Your task to perform on an android device: Toggle the flashlight Image 0: 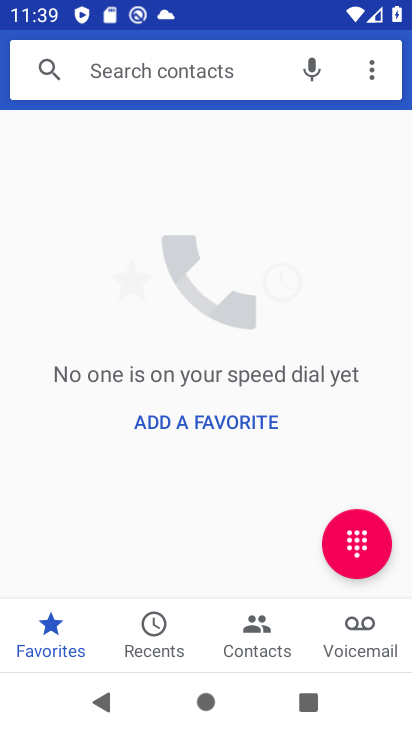
Step 0: press home button
Your task to perform on an android device: Toggle the flashlight Image 1: 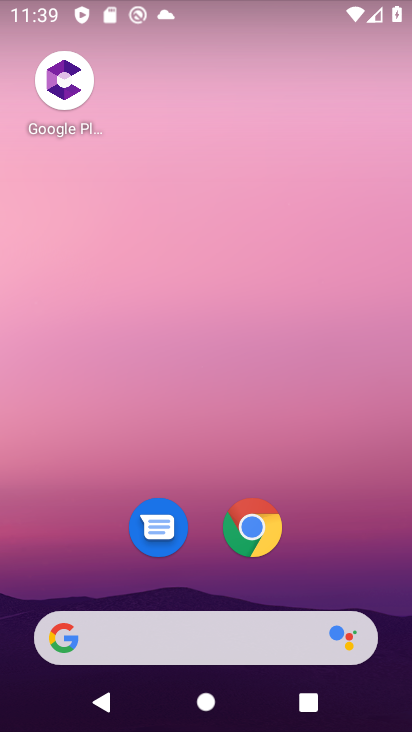
Step 1: drag from (302, 541) to (332, 131)
Your task to perform on an android device: Toggle the flashlight Image 2: 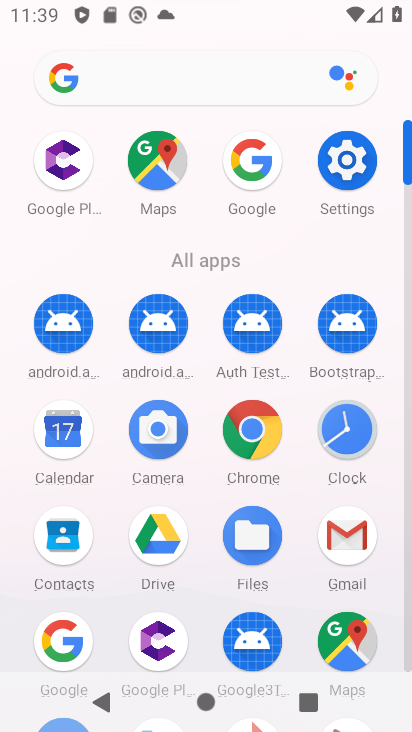
Step 2: click (338, 175)
Your task to perform on an android device: Toggle the flashlight Image 3: 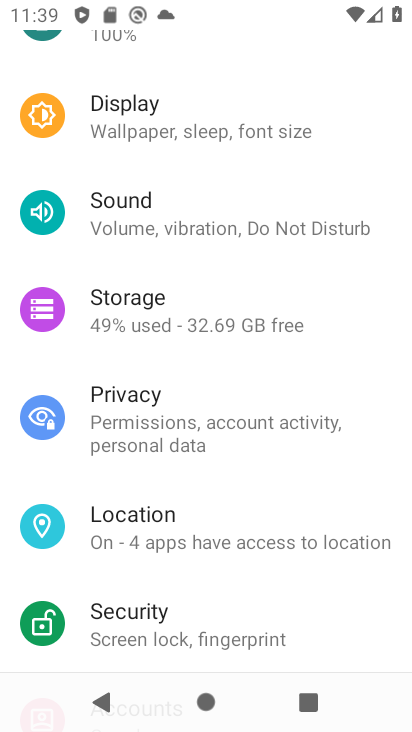
Step 3: drag from (250, 121) to (212, 643)
Your task to perform on an android device: Toggle the flashlight Image 4: 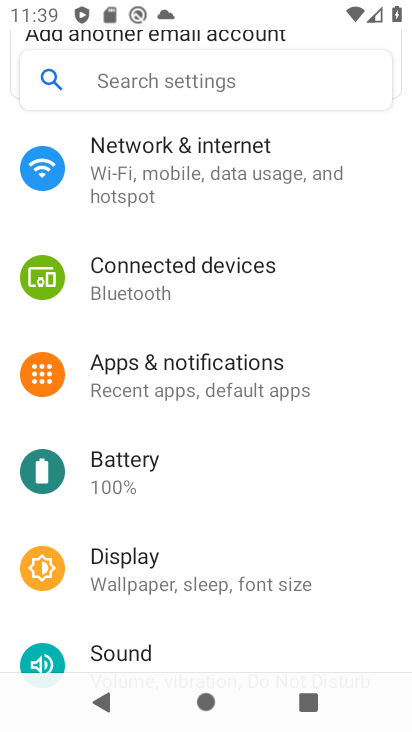
Step 4: drag from (182, 238) to (196, 663)
Your task to perform on an android device: Toggle the flashlight Image 5: 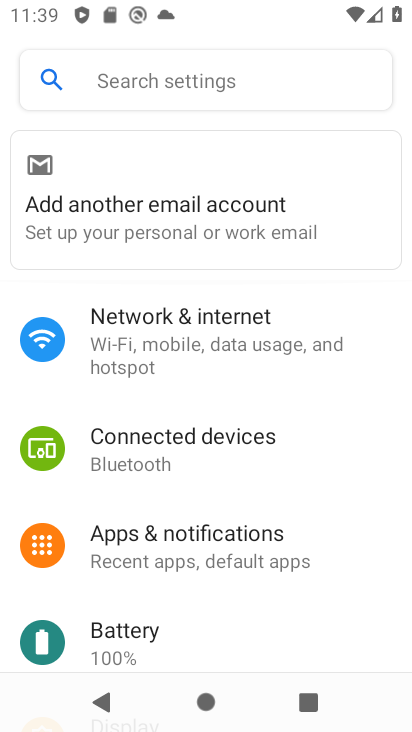
Step 5: click (155, 87)
Your task to perform on an android device: Toggle the flashlight Image 6: 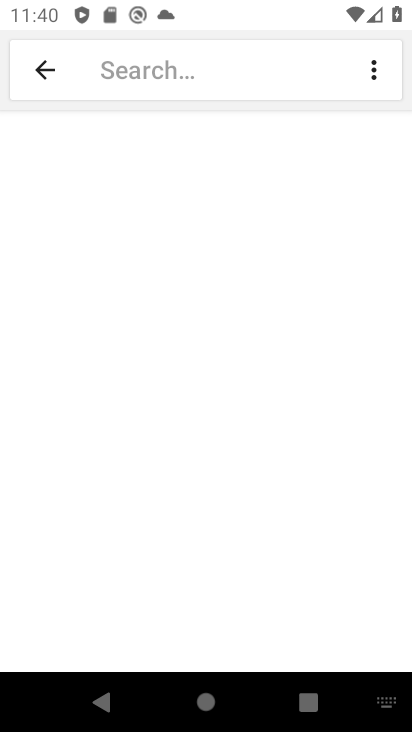
Step 6: type "Flashlight"
Your task to perform on an android device: Toggle the flashlight Image 7: 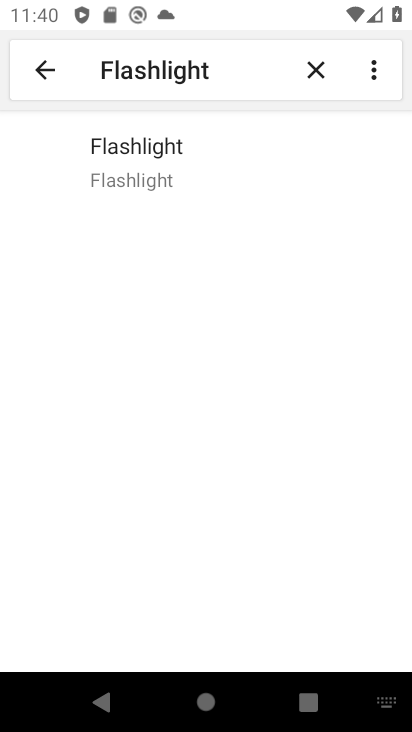
Step 7: click (196, 173)
Your task to perform on an android device: Toggle the flashlight Image 8: 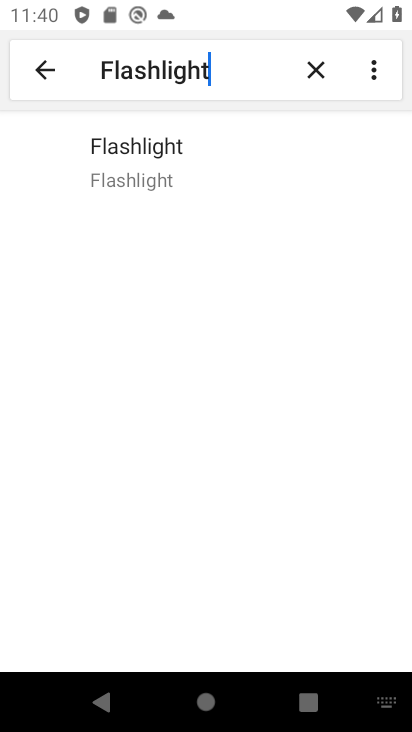
Step 8: click (191, 178)
Your task to perform on an android device: Toggle the flashlight Image 9: 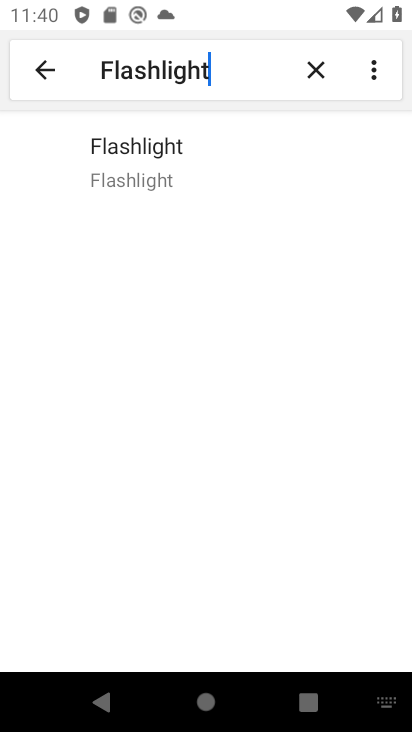
Step 9: task complete